Your task to perform on an android device: turn on sleep mode Image 0: 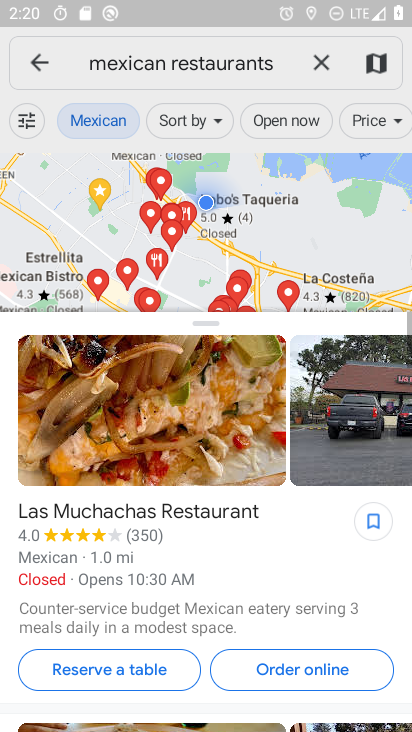
Step 0: press home button
Your task to perform on an android device: turn on sleep mode Image 1: 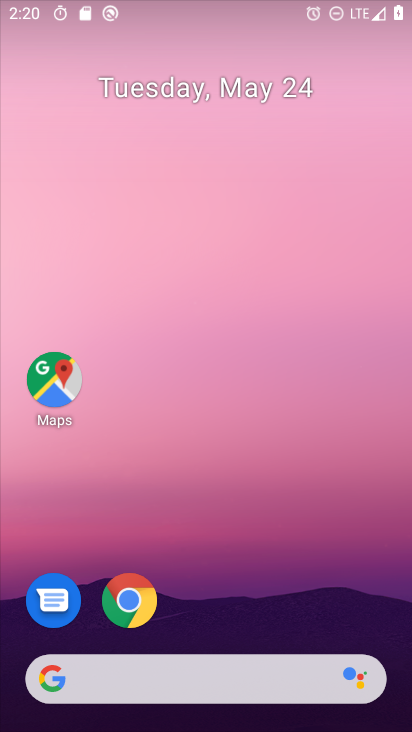
Step 1: drag from (260, 593) to (247, 174)
Your task to perform on an android device: turn on sleep mode Image 2: 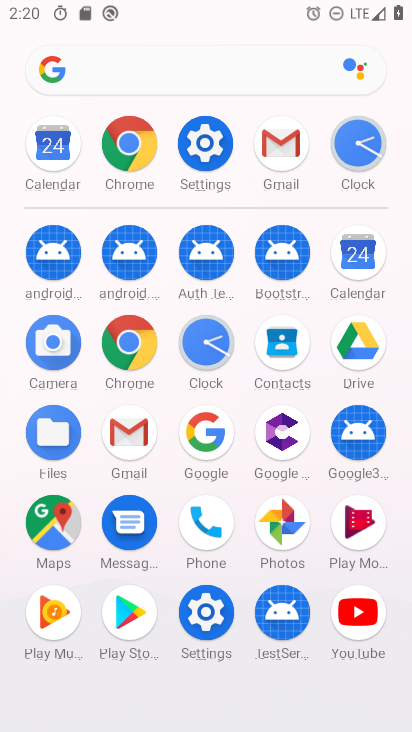
Step 2: click (211, 142)
Your task to perform on an android device: turn on sleep mode Image 3: 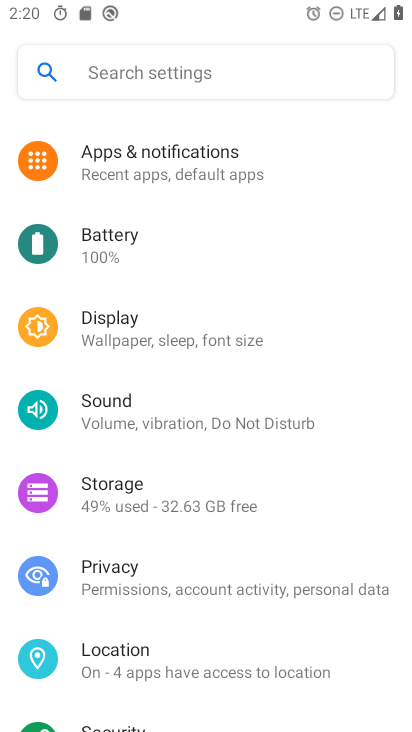
Step 3: drag from (230, 578) to (290, 537)
Your task to perform on an android device: turn on sleep mode Image 4: 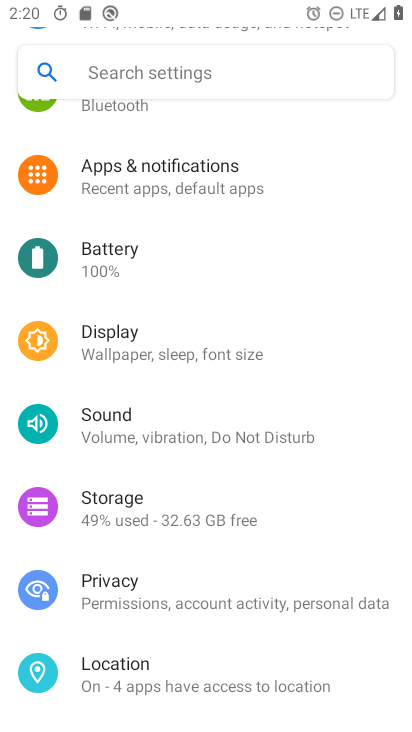
Step 4: click (150, 339)
Your task to perform on an android device: turn on sleep mode Image 5: 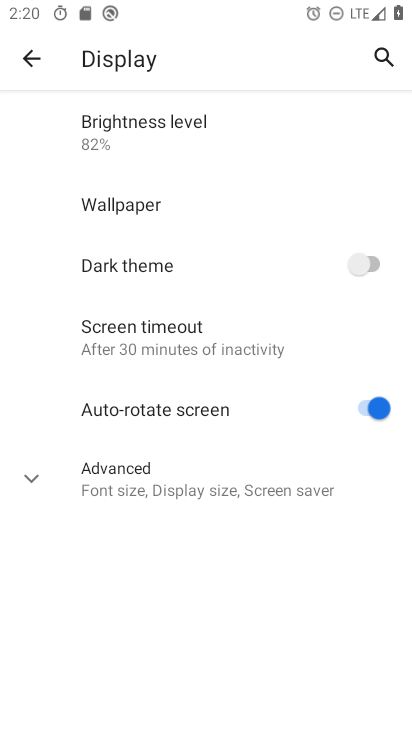
Step 5: click (172, 347)
Your task to perform on an android device: turn on sleep mode Image 6: 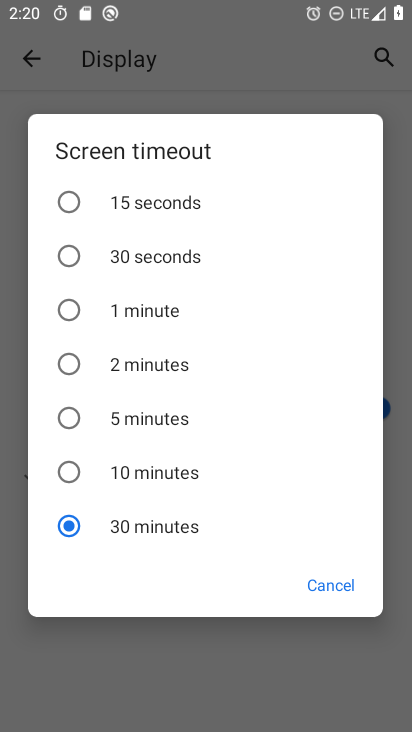
Step 6: task complete